Your task to perform on an android device: toggle pop-ups in chrome Image 0: 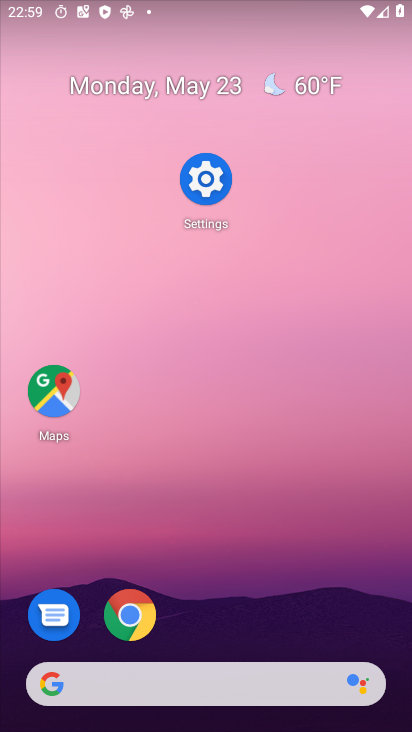
Step 0: click (135, 611)
Your task to perform on an android device: toggle pop-ups in chrome Image 1: 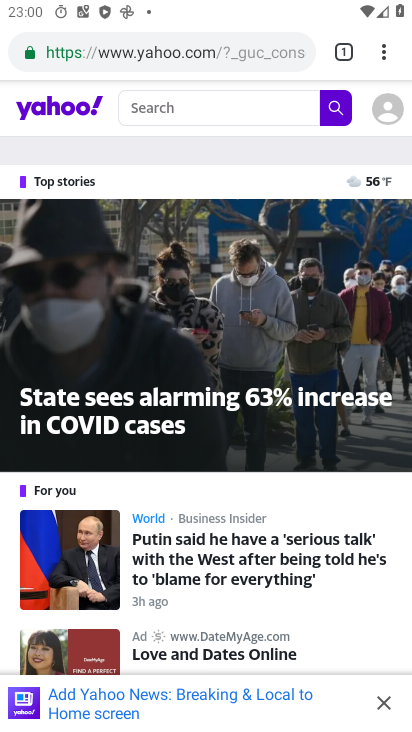
Step 1: click (375, 54)
Your task to perform on an android device: toggle pop-ups in chrome Image 2: 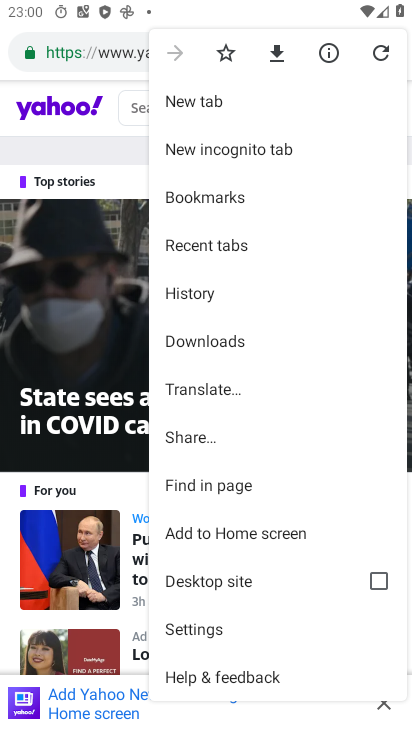
Step 2: click (212, 635)
Your task to perform on an android device: toggle pop-ups in chrome Image 3: 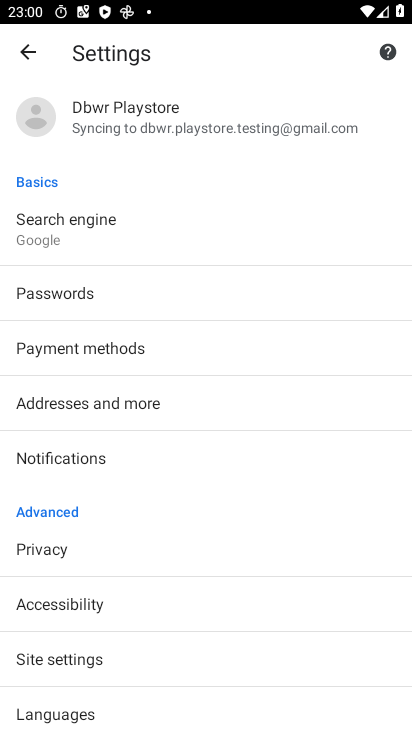
Step 3: drag from (133, 559) to (133, 262)
Your task to perform on an android device: toggle pop-ups in chrome Image 4: 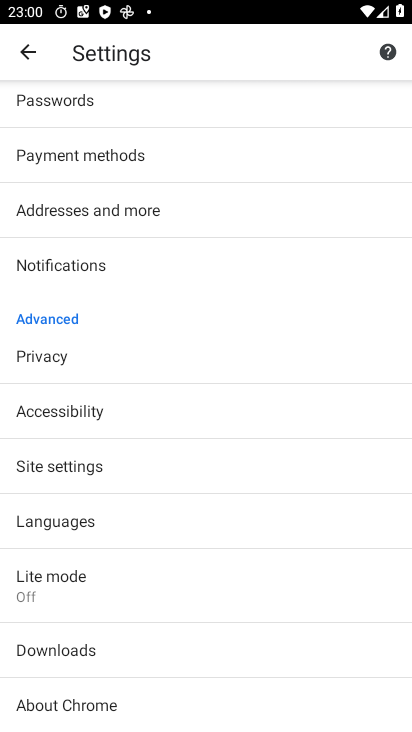
Step 4: click (78, 464)
Your task to perform on an android device: toggle pop-ups in chrome Image 5: 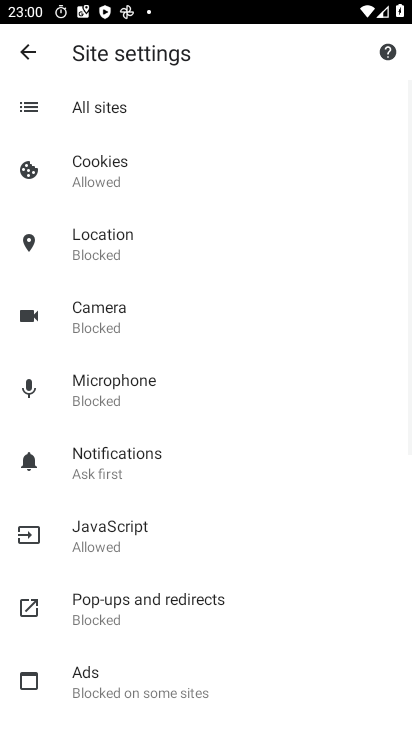
Step 5: click (145, 614)
Your task to perform on an android device: toggle pop-ups in chrome Image 6: 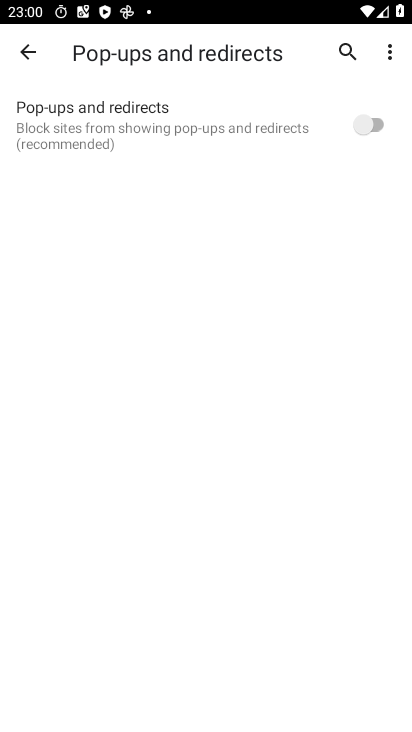
Step 6: click (369, 126)
Your task to perform on an android device: toggle pop-ups in chrome Image 7: 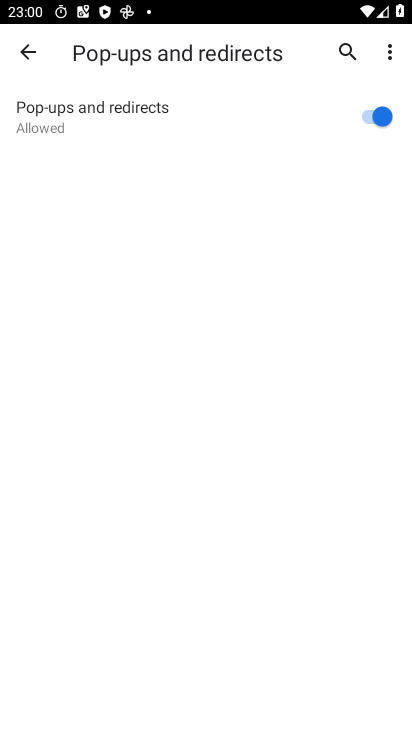
Step 7: task complete